Your task to perform on an android device: open app "Google Sheets" Image 0: 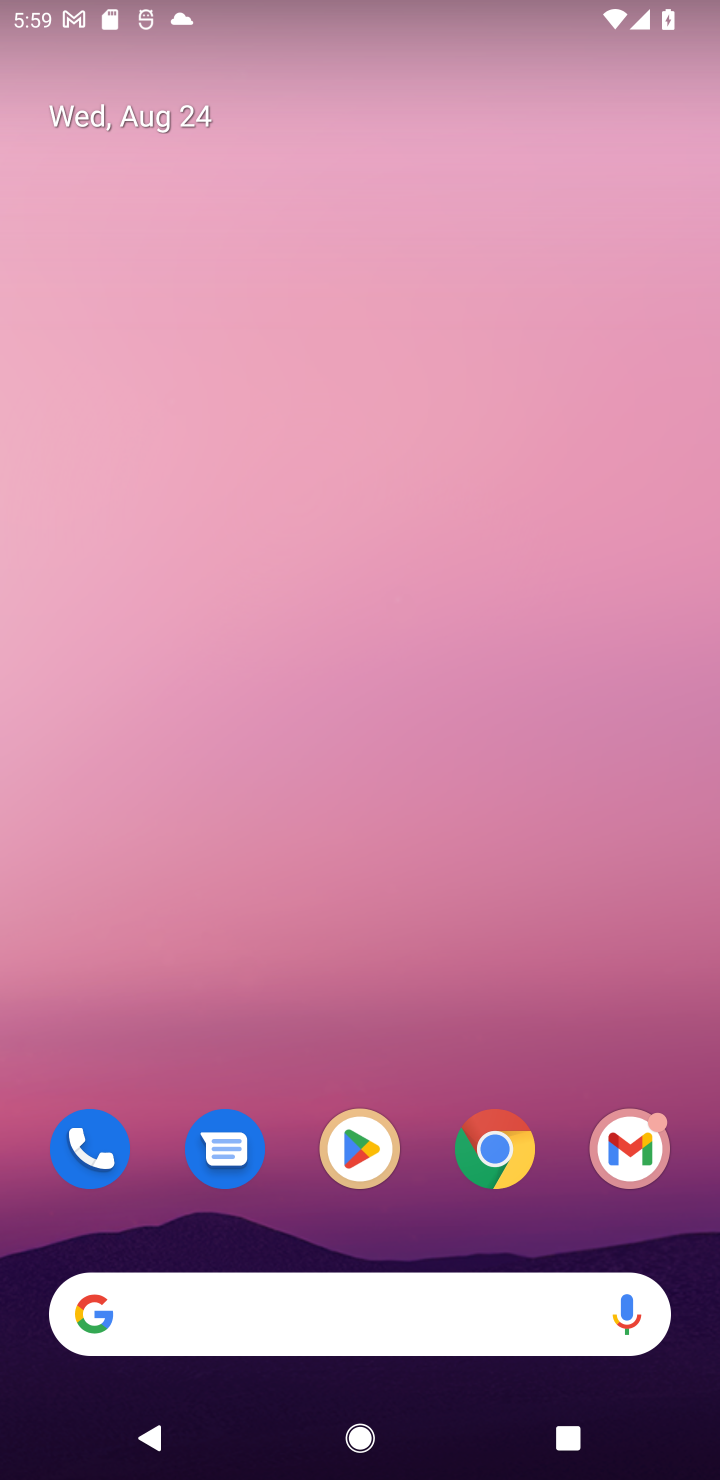
Step 0: click (351, 1146)
Your task to perform on an android device: open app "Google Sheets" Image 1: 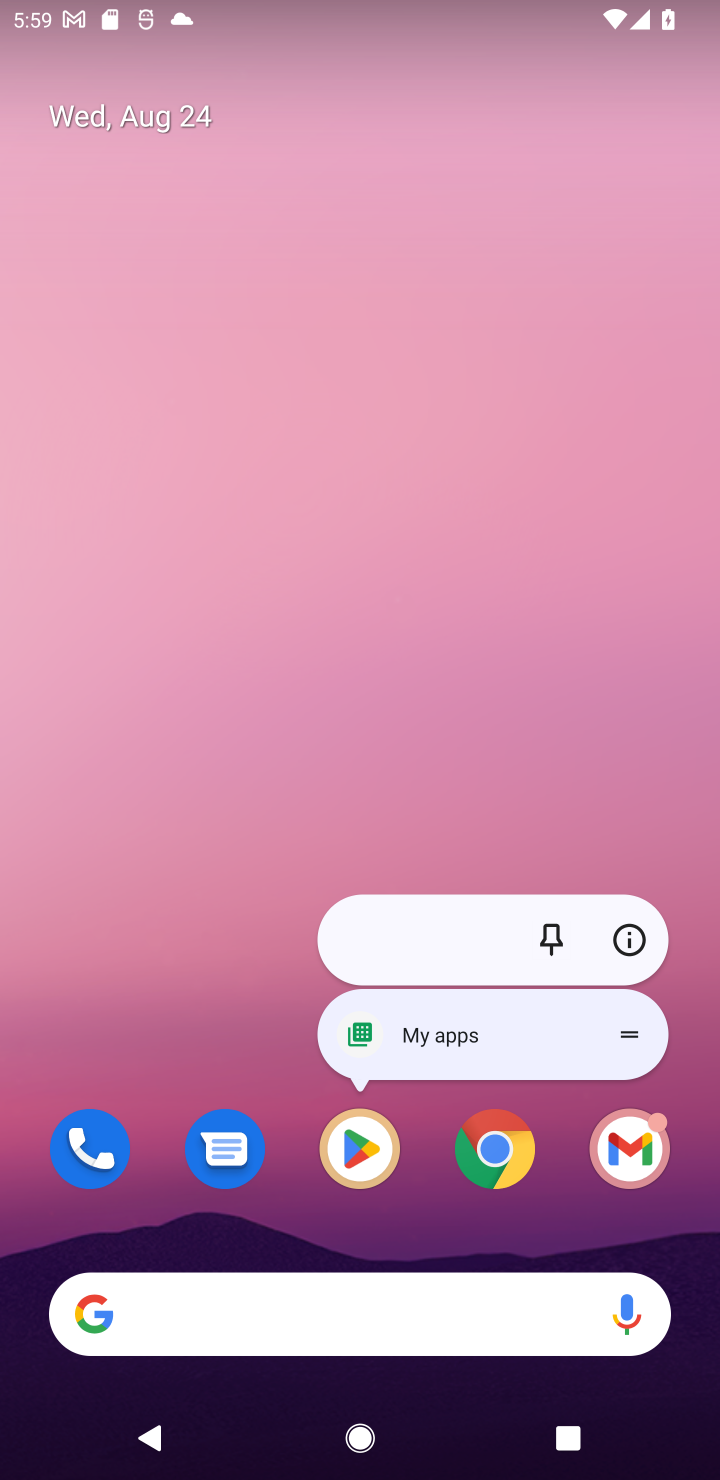
Step 1: click (351, 1158)
Your task to perform on an android device: open app "Google Sheets" Image 2: 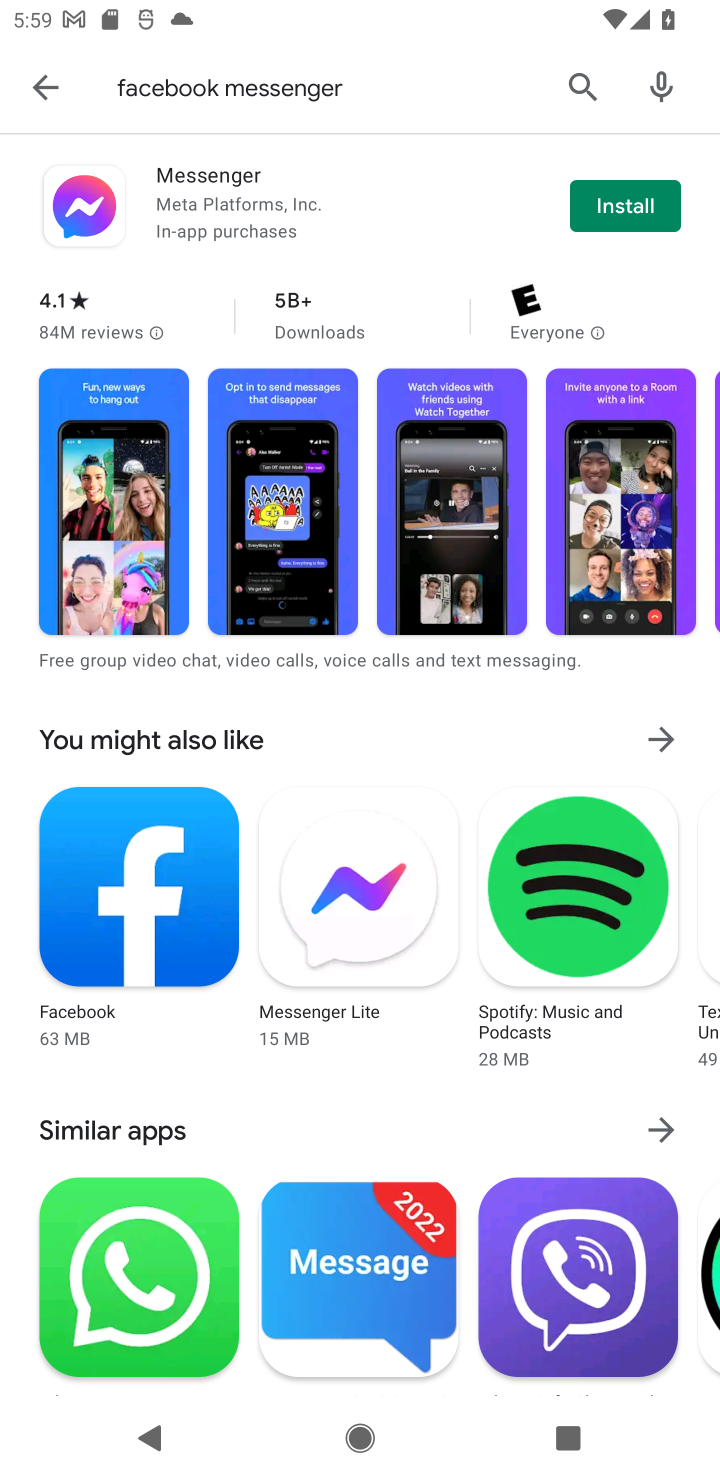
Step 2: click (579, 76)
Your task to perform on an android device: open app "Google Sheets" Image 3: 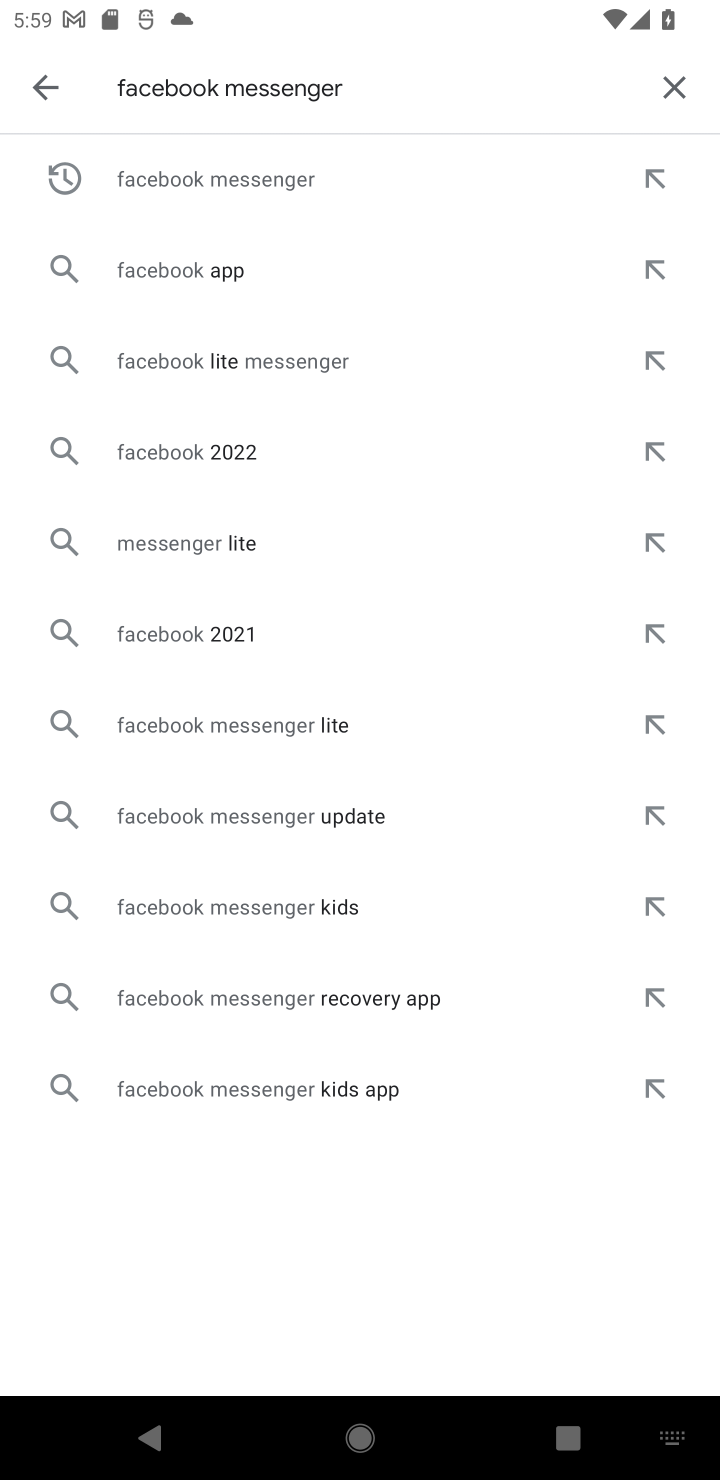
Step 3: click (689, 84)
Your task to perform on an android device: open app "Google Sheets" Image 4: 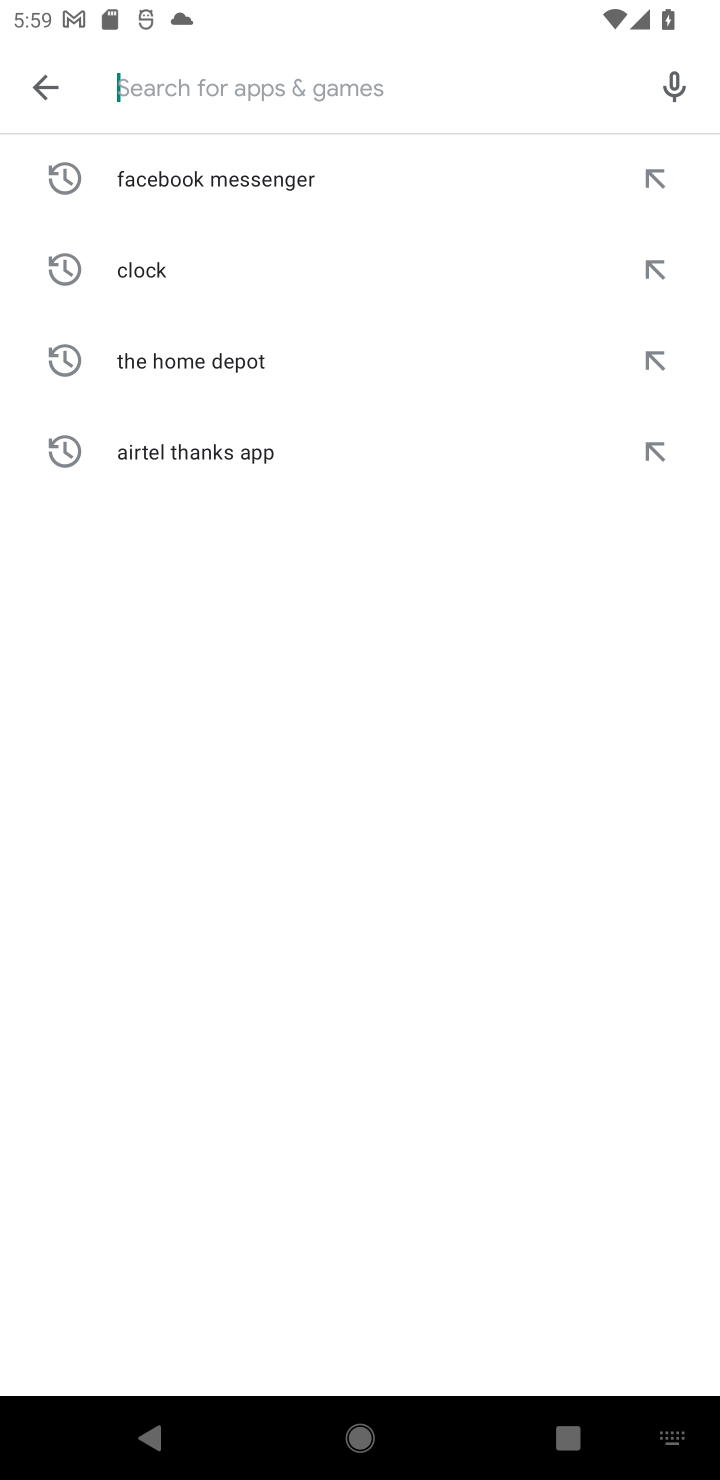
Step 4: type "Google Sheets"
Your task to perform on an android device: open app "Google Sheets" Image 5: 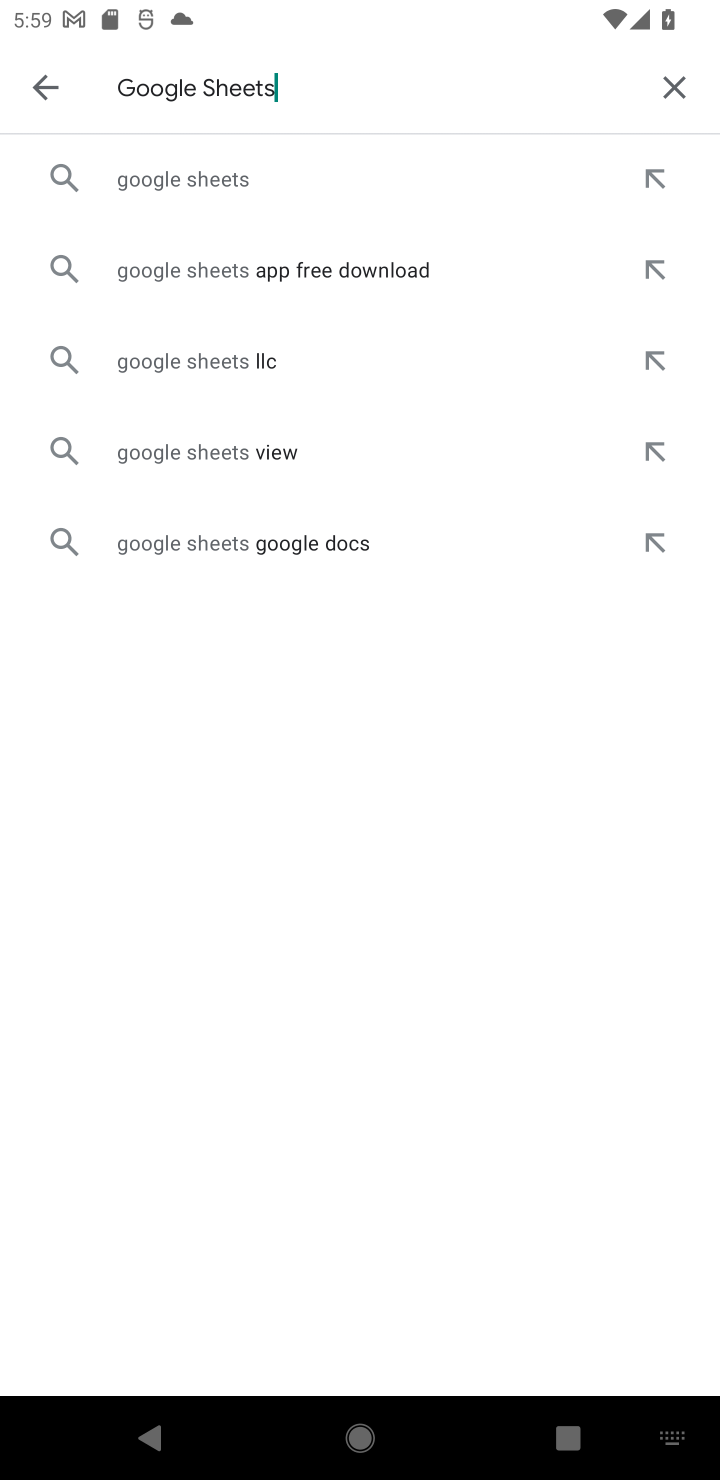
Step 5: click (206, 187)
Your task to perform on an android device: open app "Google Sheets" Image 6: 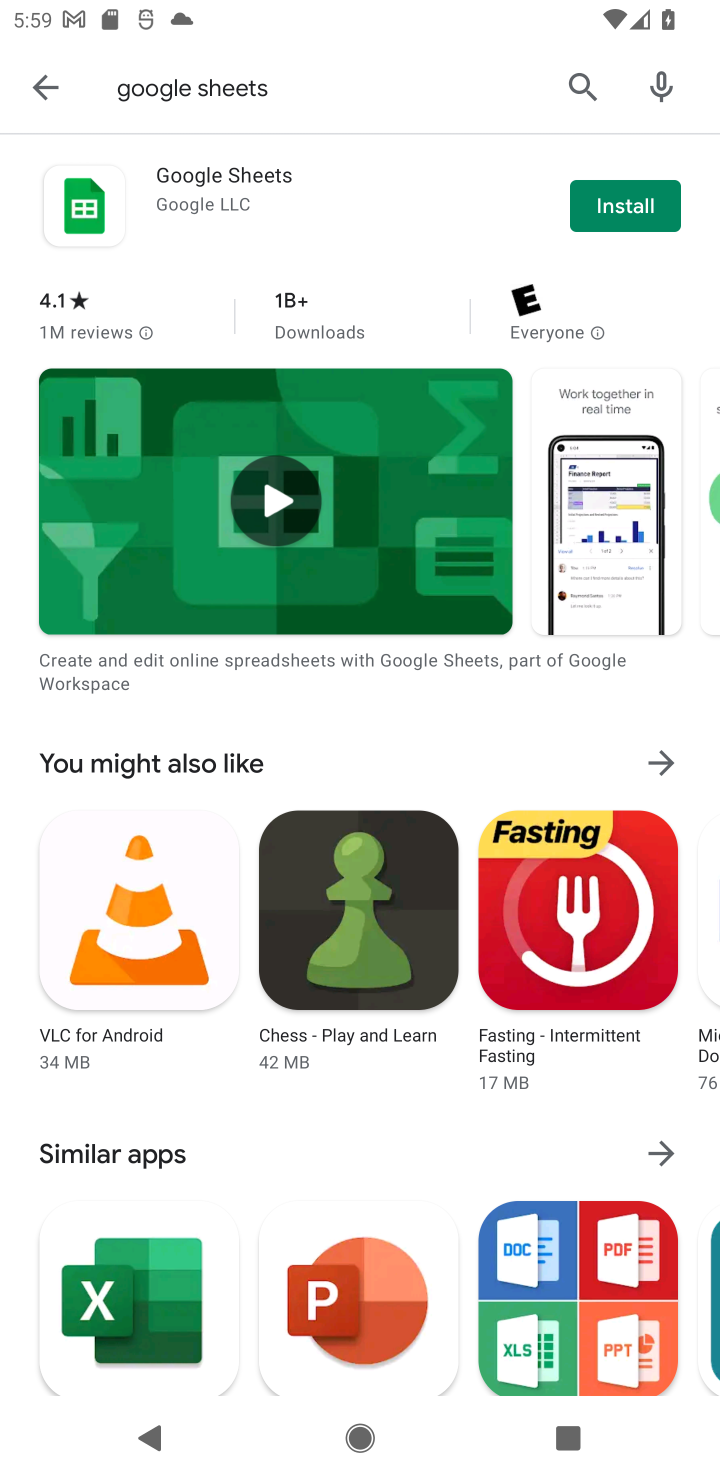
Step 6: task complete